Your task to perform on an android device: Go to Google maps Image 0: 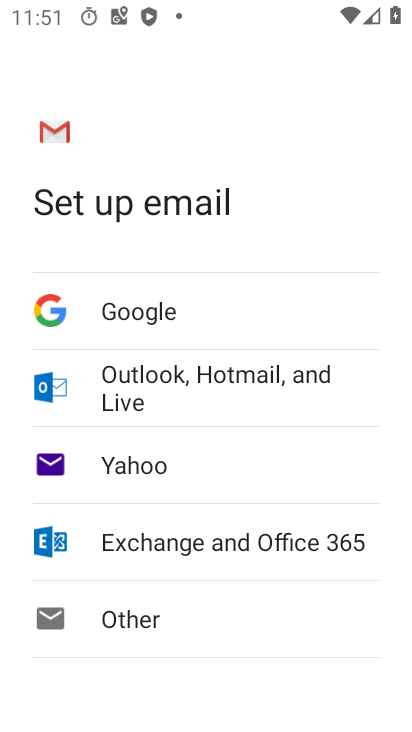
Step 0: press home button
Your task to perform on an android device: Go to Google maps Image 1: 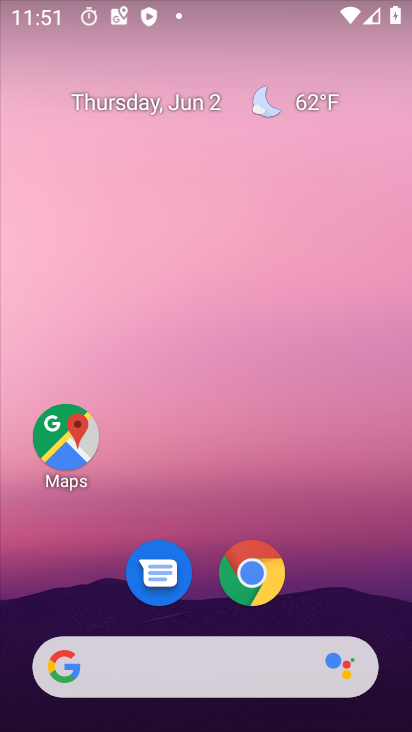
Step 1: drag from (358, 575) to (355, 46)
Your task to perform on an android device: Go to Google maps Image 2: 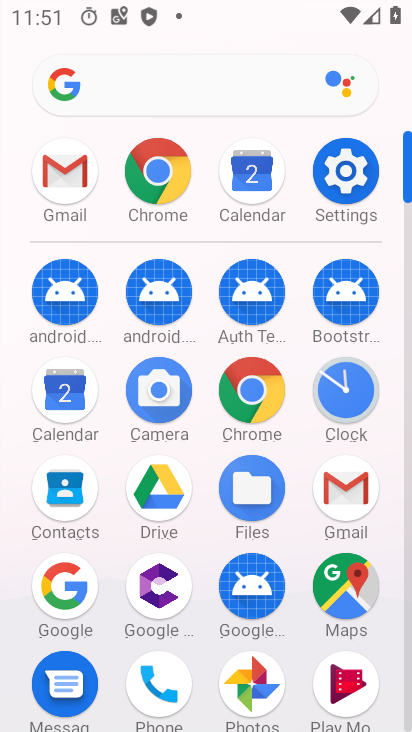
Step 2: click (335, 577)
Your task to perform on an android device: Go to Google maps Image 3: 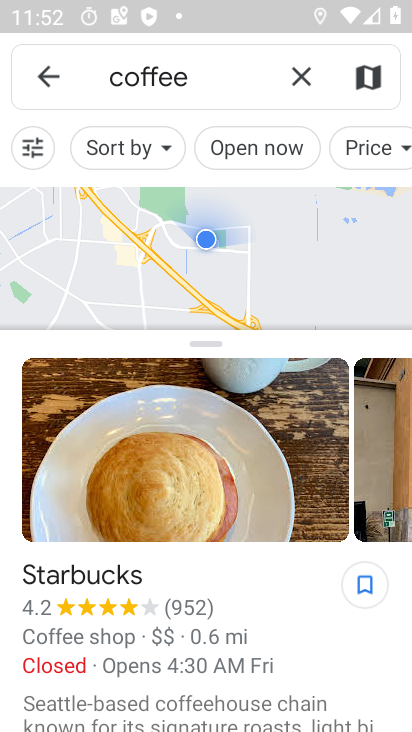
Step 3: task complete